Your task to perform on an android device: toggle airplane mode Image 0: 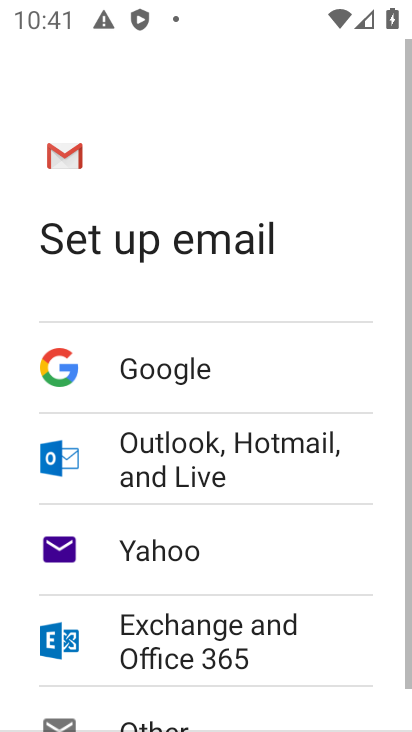
Step 0: press home button
Your task to perform on an android device: toggle airplane mode Image 1: 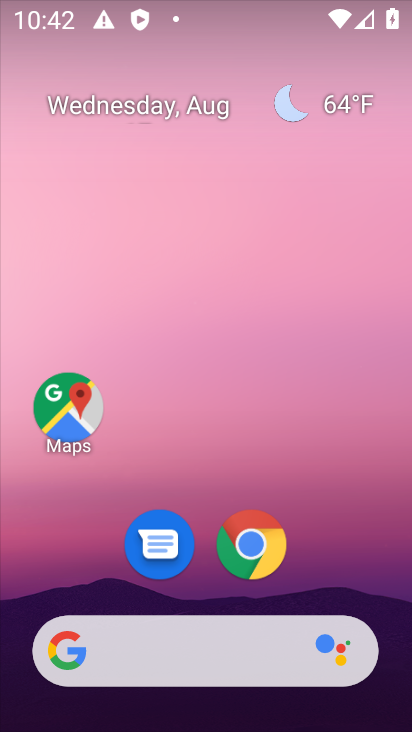
Step 1: task complete